Your task to perform on an android device: Search for sushi restaurants on Maps Image 0: 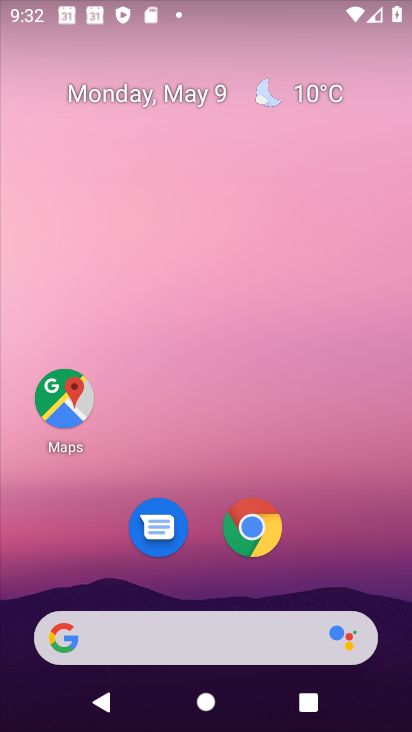
Step 0: drag from (362, 578) to (385, 228)
Your task to perform on an android device: Search for sushi restaurants on Maps Image 1: 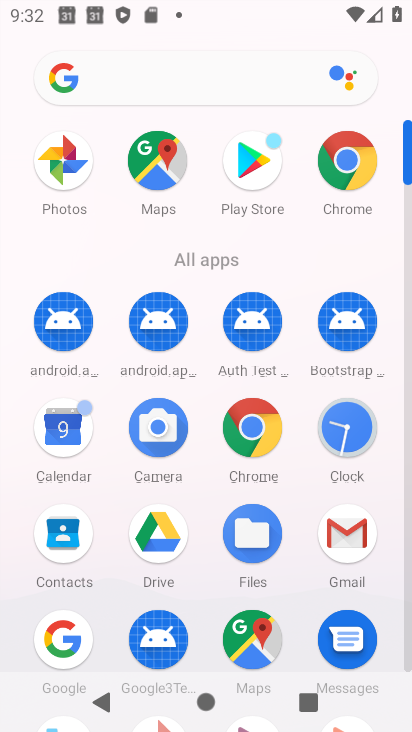
Step 1: click (282, 623)
Your task to perform on an android device: Search for sushi restaurants on Maps Image 2: 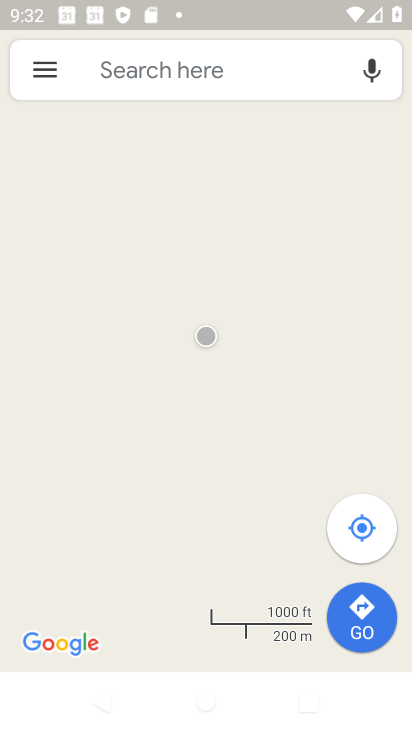
Step 2: click (223, 74)
Your task to perform on an android device: Search for sushi restaurants on Maps Image 3: 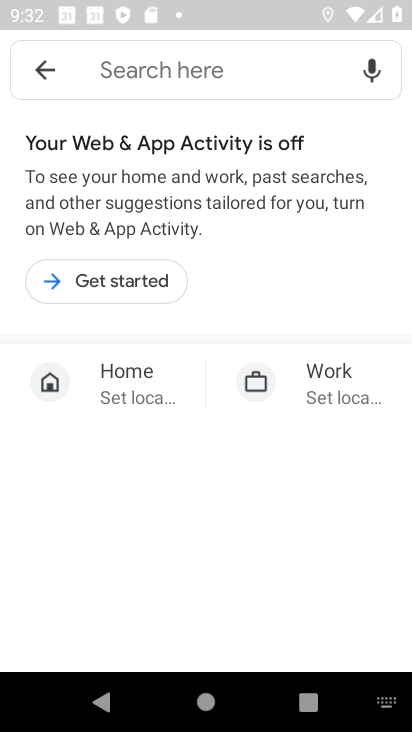
Step 3: type "sushi"
Your task to perform on an android device: Search for sushi restaurants on Maps Image 4: 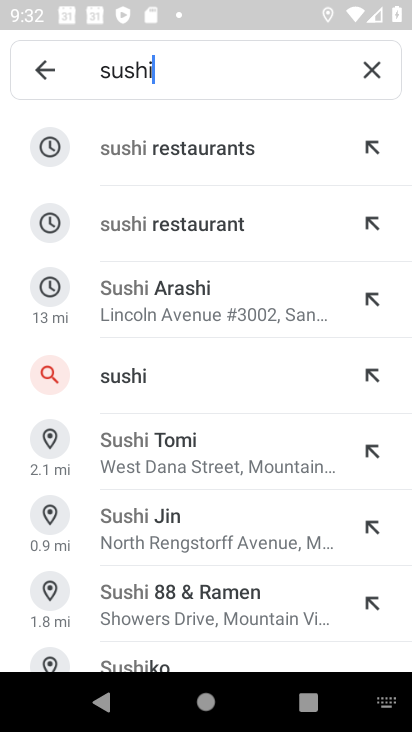
Step 4: click (250, 165)
Your task to perform on an android device: Search for sushi restaurants on Maps Image 5: 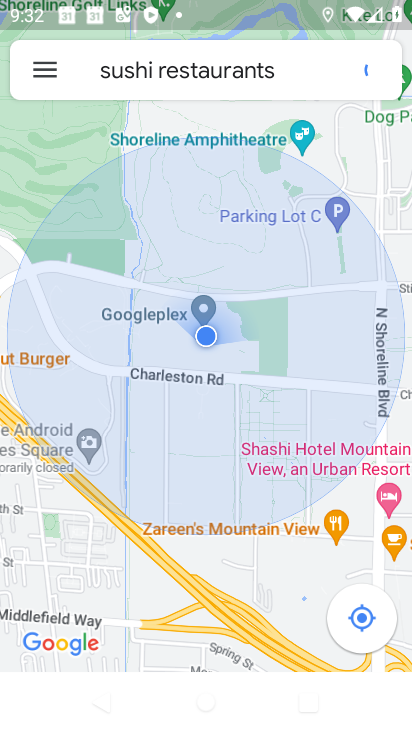
Step 5: task complete